Your task to perform on an android device: Open location settings Image 0: 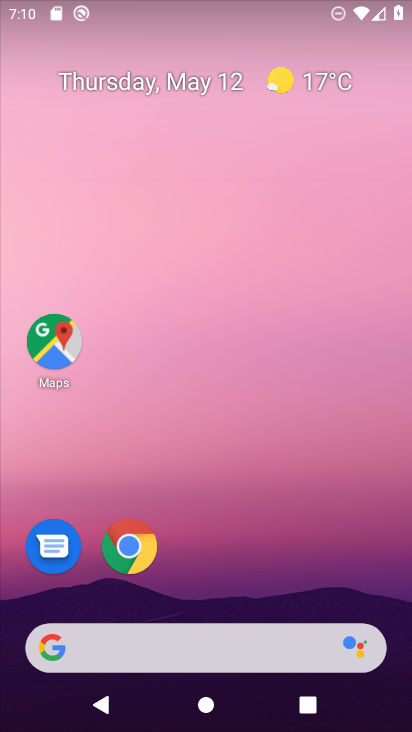
Step 0: drag from (243, 529) to (96, 32)
Your task to perform on an android device: Open location settings Image 1: 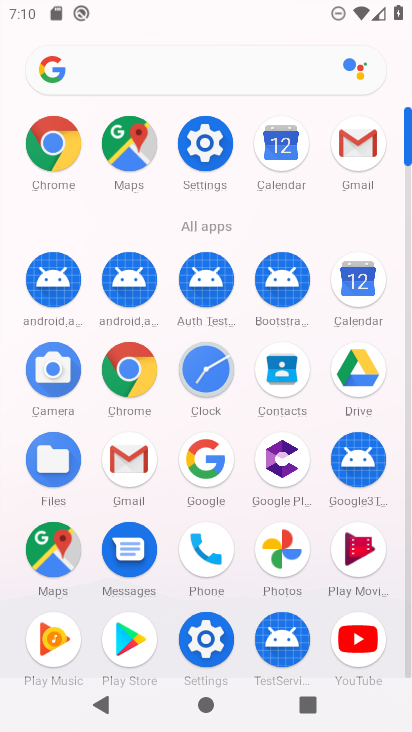
Step 1: click (201, 146)
Your task to perform on an android device: Open location settings Image 2: 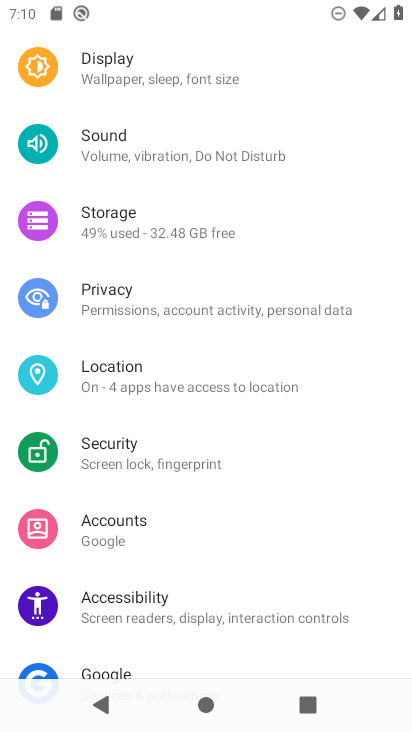
Step 2: click (125, 362)
Your task to perform on an android device: Open location settings Image 3: 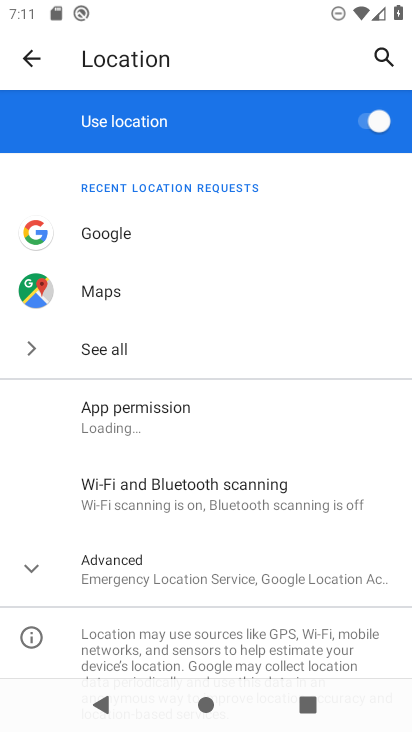
Step 3: task complete